Your task to perform on an android device: Check the news Image 0: 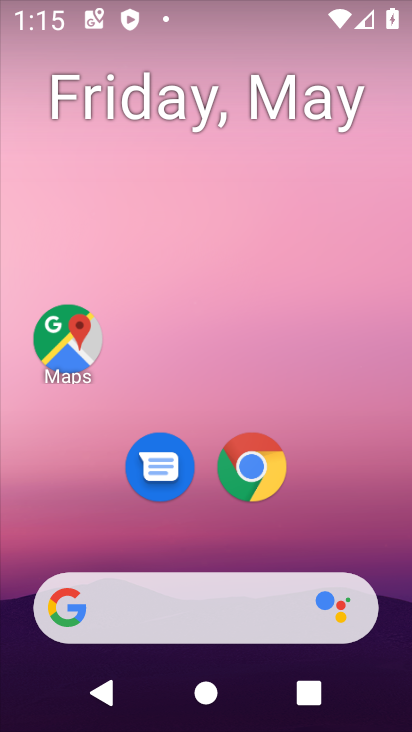
Step 0: click (256, 481)
Your task to perform on an android device: Check the news Image 1: 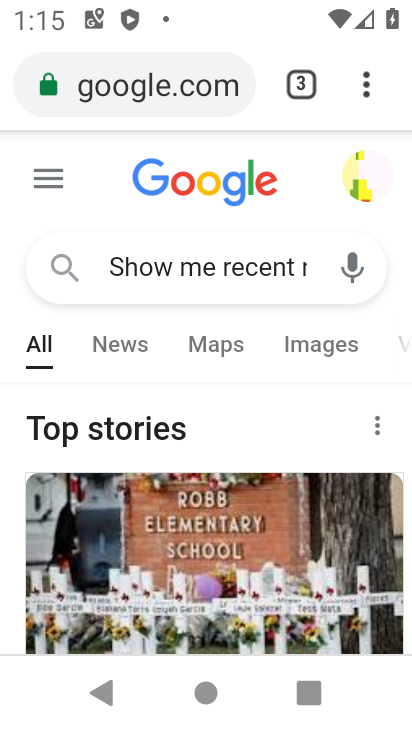
Step 1: click (180, 84)
Your task to perform on an android device: Check the news Image 2: 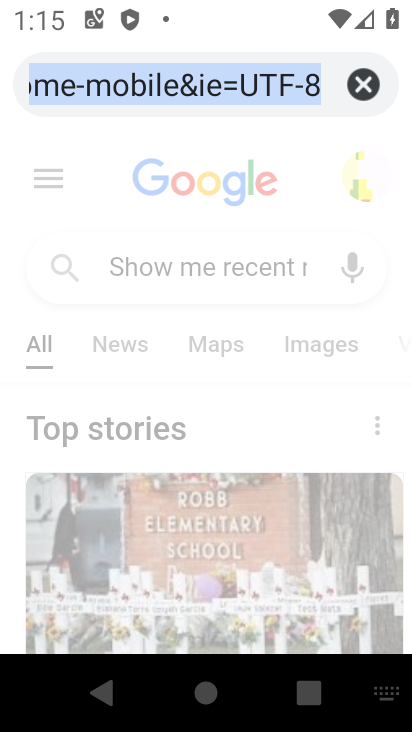
Step 2: click (200, 83)
Your task to perform on an android device: Check the news Image 3: 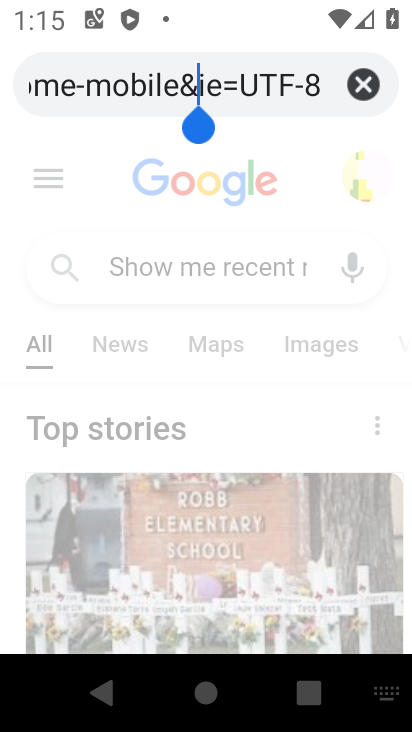
Step 3: click (369, 77)
Your task to perform on an android device: Check the news Image 4: 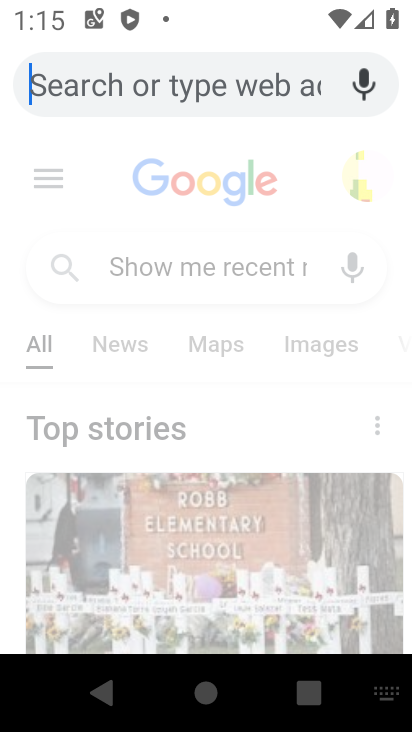
Step 4: type "news"
Your task to perform on an android device: Check the news Image 5: 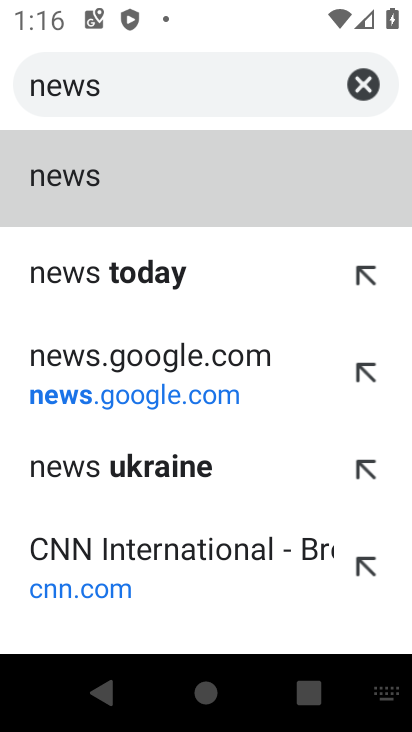
Step 5: click (210, 160)
Your task to perform on an android device: Check the news Image 6: 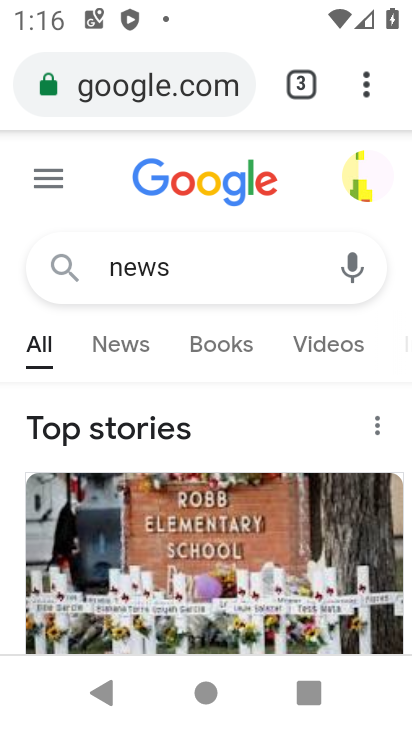
Step 6: task complete